Your task to perform on an android device: turn on wifi Image 0: 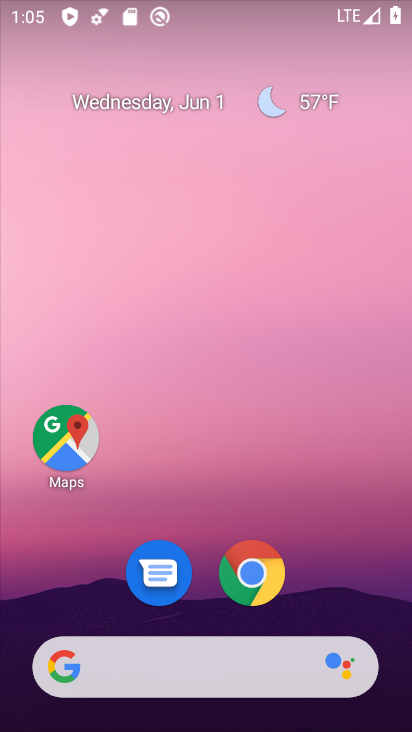
Step 0: drag from (215, 590) to (248, 258)
Your task to perform on an android device: turn on wifi Image 1: 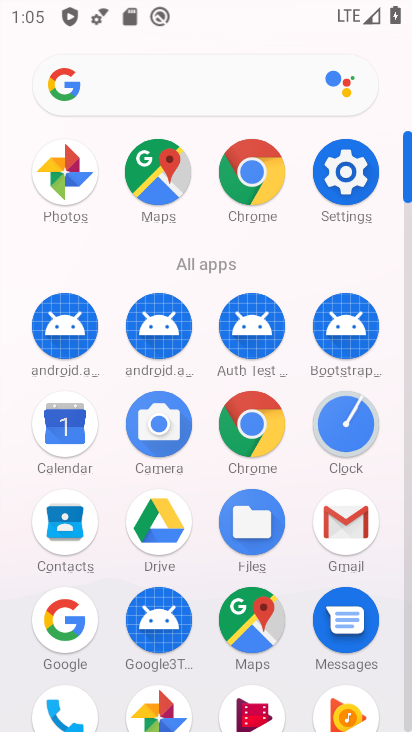
Step 1: click (340, 175)
Your task to perform on an android device: turn on wifi Image 2: 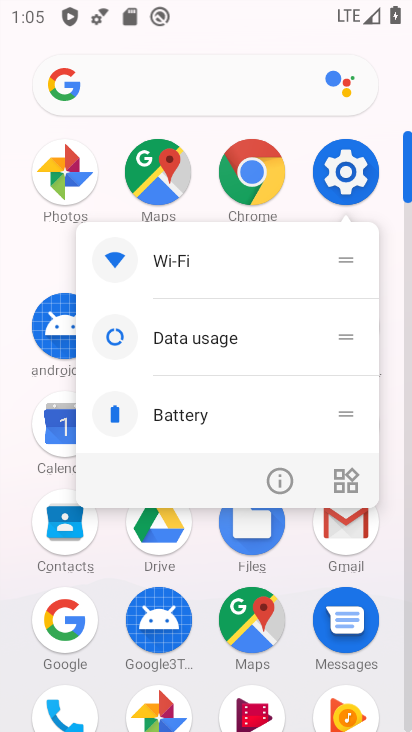
Step 2: click (198, 269)
Your task to perform on an android device: turn on wifi Image 3: 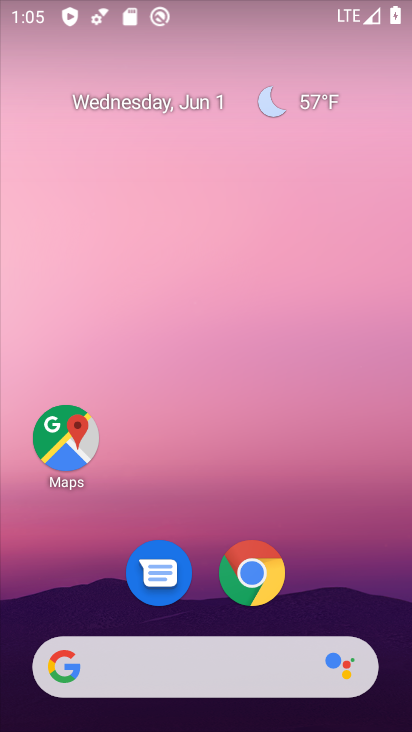
Step 3: drag from (191, 610) to (211, 140)
Your task to perform on an android device: turn on wifi Image 4: 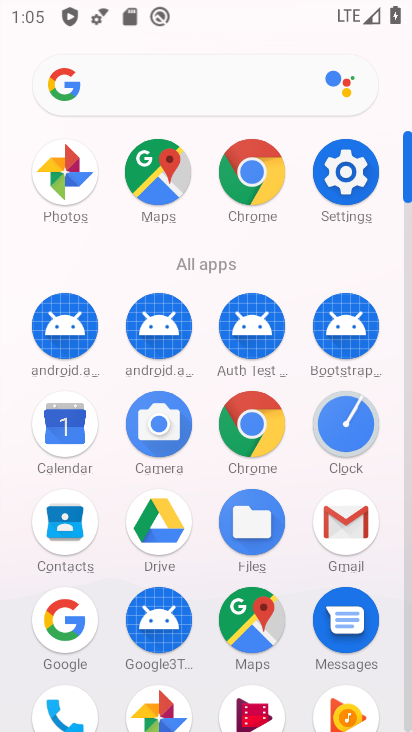
Step 4: click (357, 169)
Your task to perform on an android device: turn on wifi Image 5: 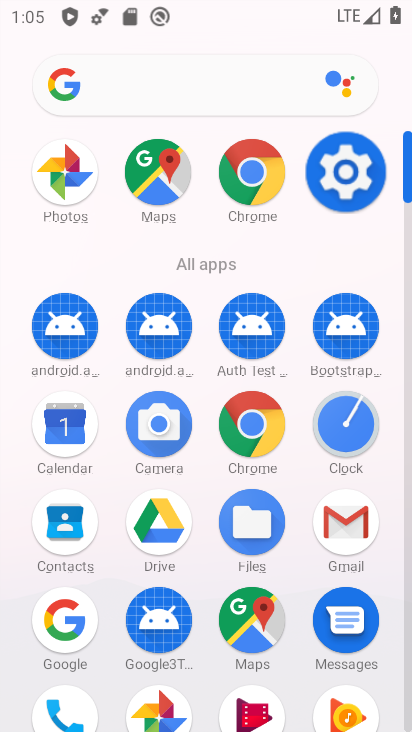
Step 5: click (357, 169)
Your task to perform on an android device: turn on wifi Image 6: 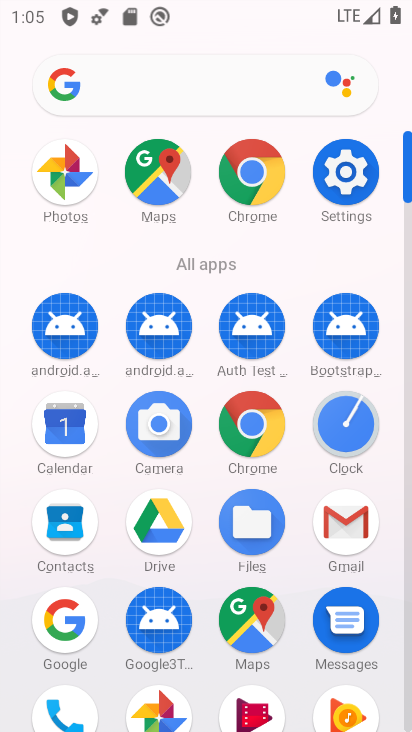
Step 6: click (333, 196)
Your task to perform on an android device: turn on wifi Image 7: 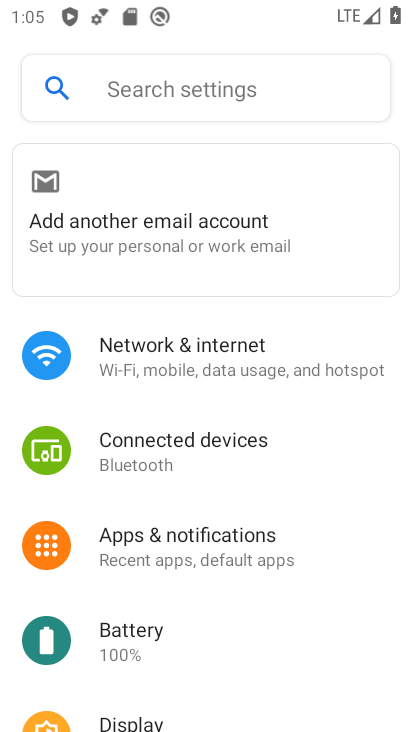
Step 7: click (221, 360)
Your task to perform on an android device: turn on wifi Image 8: 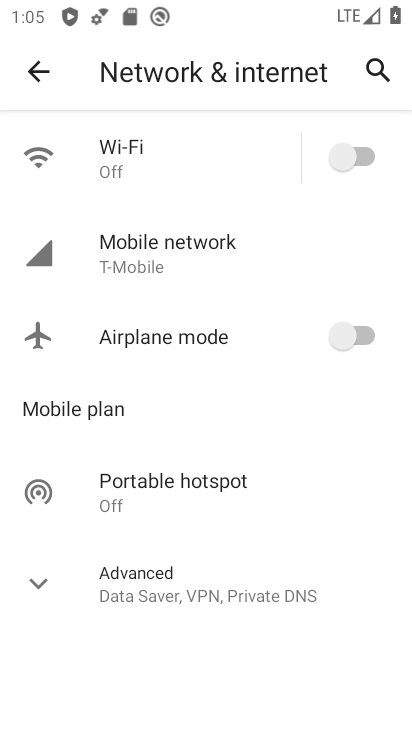
Step 8: click (198, 163)
Your task to perform on an android device: turn on wifi Image 9: 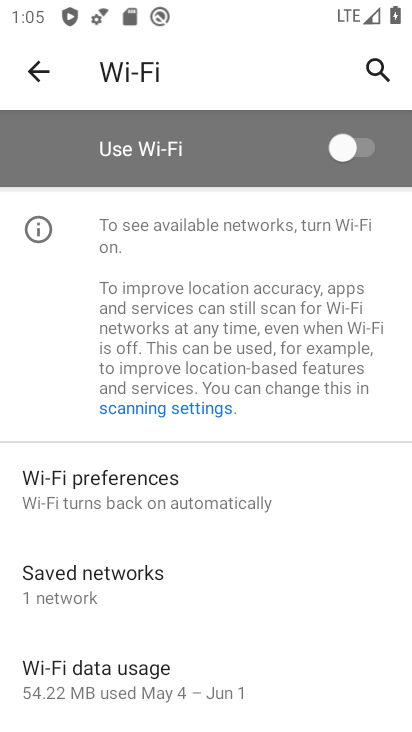
Step 9: click (295, 155)
Your task to perform on an android device: turn on wifi Image 10: 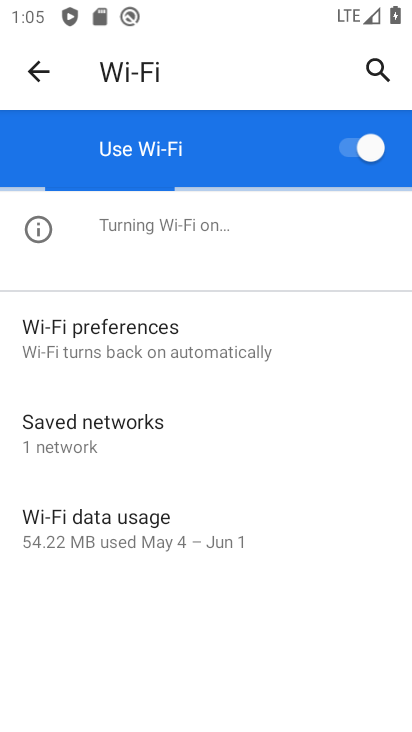
Step 10: task complete